Your task to perform on an android device: open chrome privacy settings Image 0: 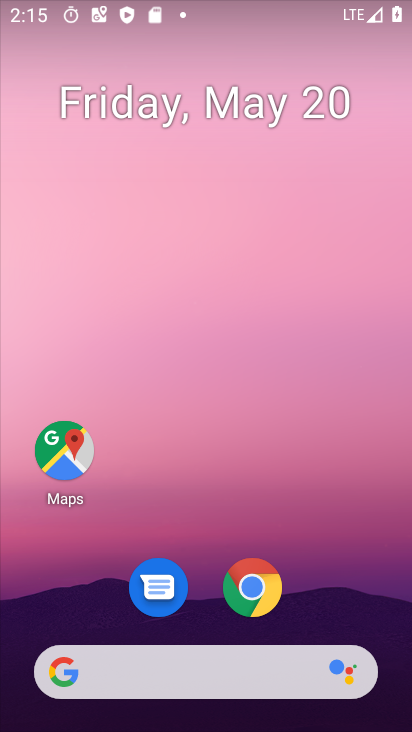
Step 0: click (255, 582)
Your task to perform on an android device: open chrome privacy settings Image 1: 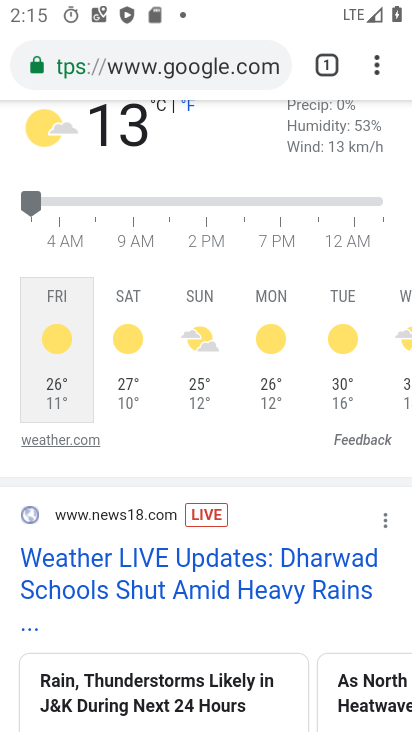
Step 1: drag from (373, 63) to (299, 373)
Your task to perform on an android device: open chrome privacy settings Image 2: 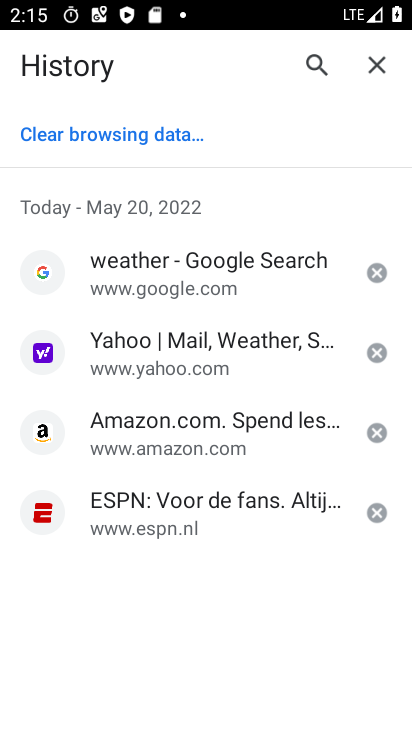
Step 2: click (373, 68)
Your task to perform on an android device: open chrome privacy settings Image 3: 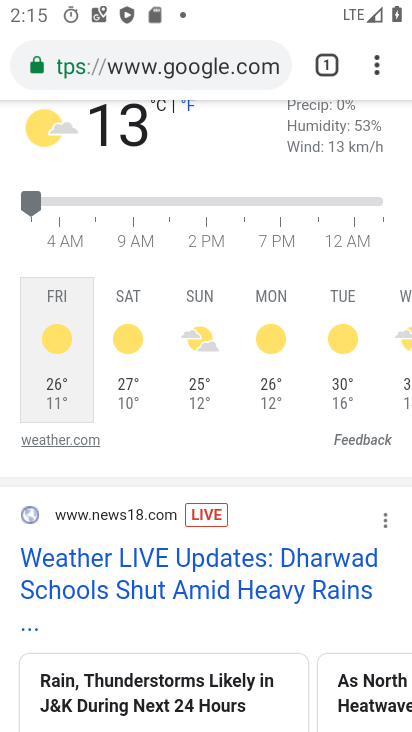
Step 3: drag from (376, 63) to (196, 636)
Your task to perform on an android device: open chrome privacy settings Image 4: 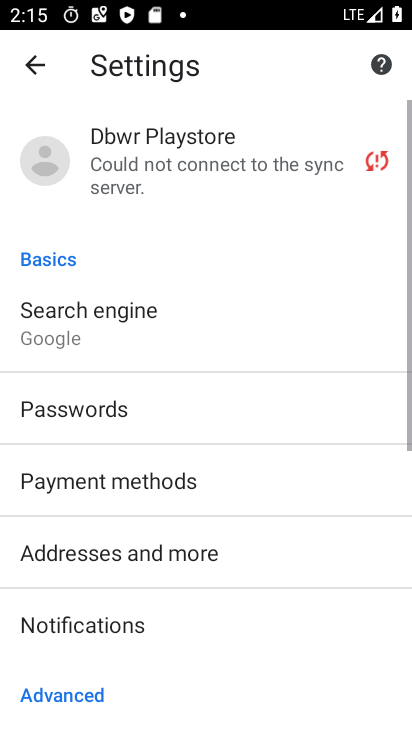
Step 4: drag from (197, 623) to (214, 50)
Your task to perform on an android device: open chrome privacy settings Image 5: 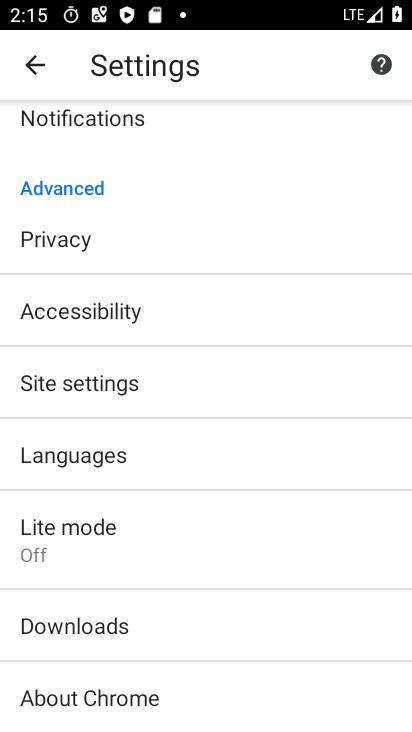
Step 5: click (127, 246)
Your task to perform on an android device: open chrome privacy settings Image 6: 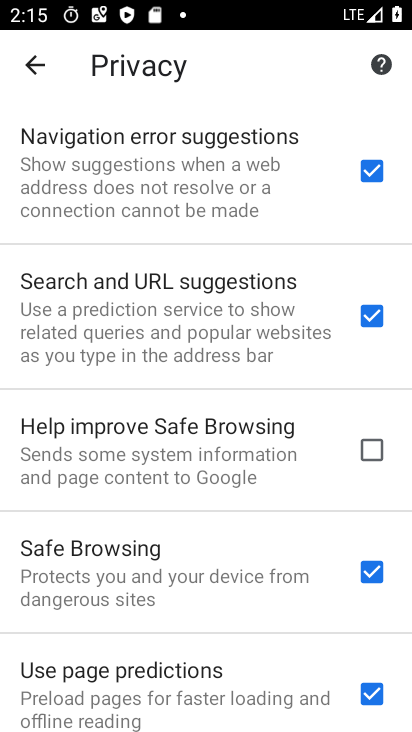
Step 6: task complete